Your task to perform on an android device: Go to internet settings Image 0: 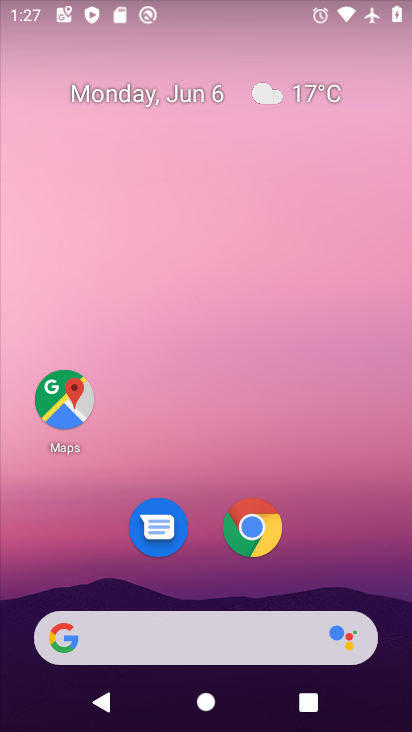
Step 0: drag from (351, 515) to (232, 2)
Your task to perform on an android device: Go to internet settings Image 1: 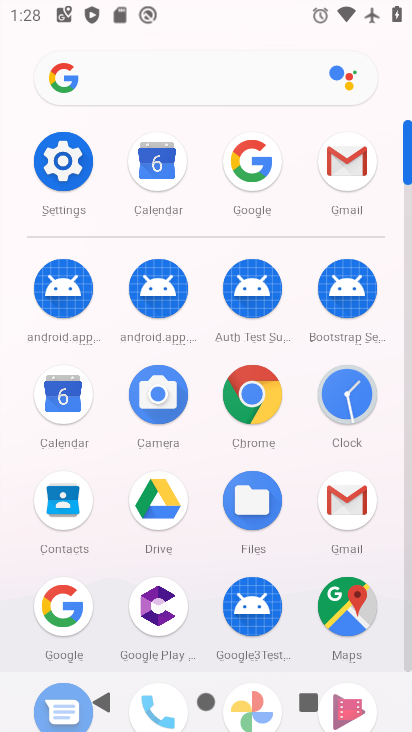
Step 1: click (65, 169)
Your task to perform on an android device: Go to internet settings Image 2: 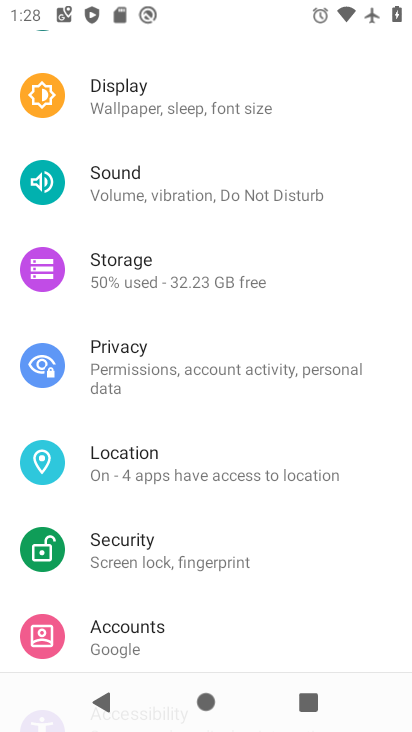
Step 2: drag from (257, 167) to (260, 700)
Your task to perform on an android device: Go to internet settings Image 3: 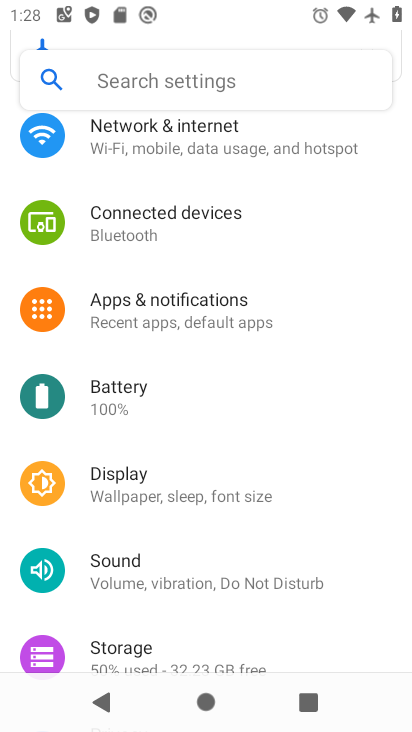
Step 3: click (218, 138)
Your task to perform on an android device: Go to internet settings Image 4: 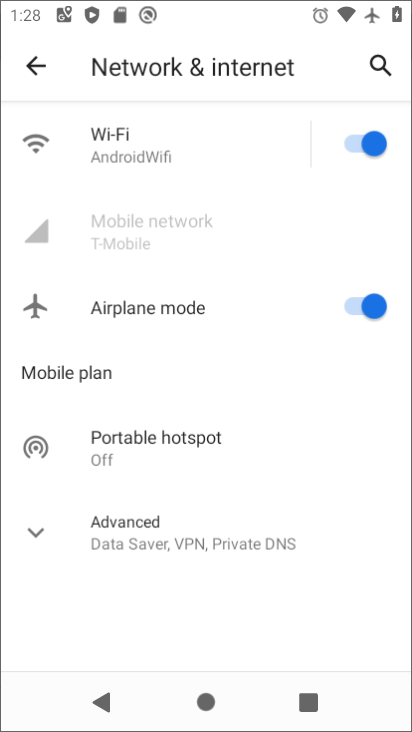
Step 4: task complete